Your task to perform on an android device: Open Google Chrome and click the shortcut for Amazon.com Image 0: 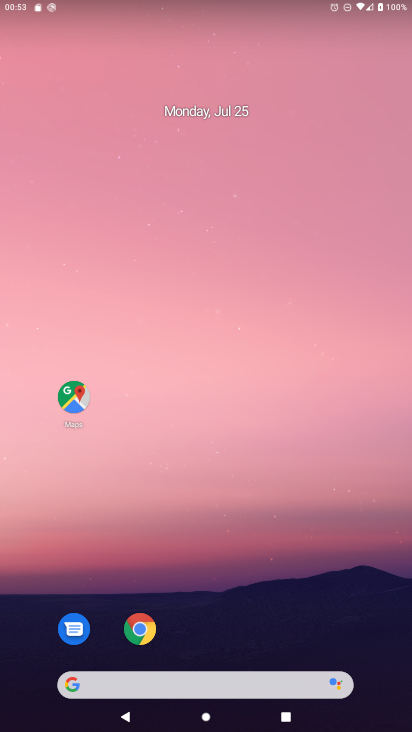
Step 0: drag from (192, 591) to (237, 174)
Your task to perform on an android device: Open Google Chrome and click the shortcut for Amazon.com Image 1: 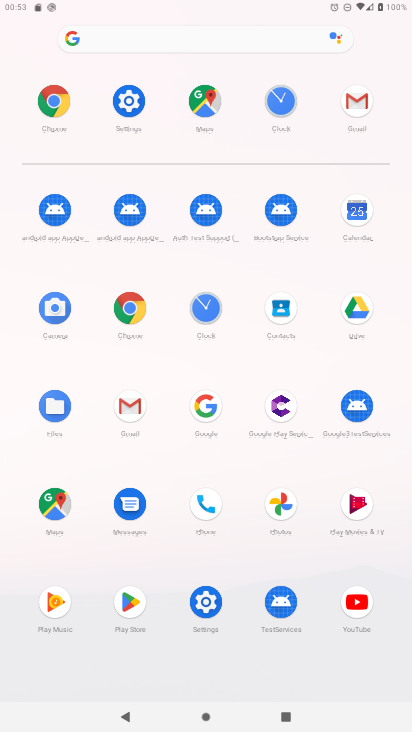
Step 1: click (127, 312)
Your task to perform on an android device: Open Google Chrome and click the shortcut for Amazon.com Image 2: 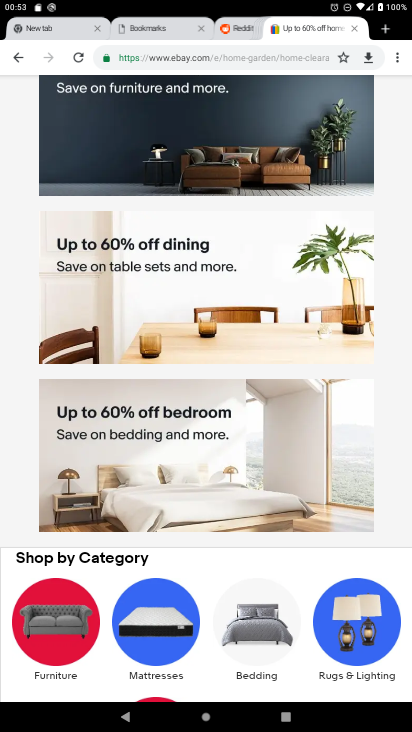
Step 2: drag from (392, 73) to (12, 170)
Your task to perform on an android device: Open Google Chrome and click the shortcut for Amazon.com Image 3: 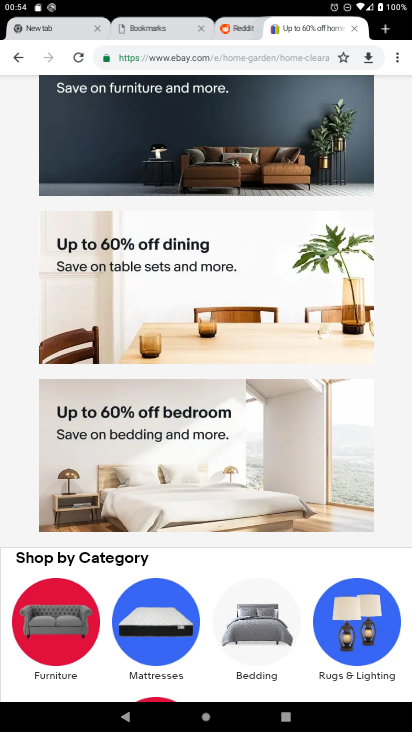
Step 3: drag from (136, 197) to (210, 718)
Your task to perform on an android device: Open Google Chrome and click the shortcut for Amazon.com Image 4: 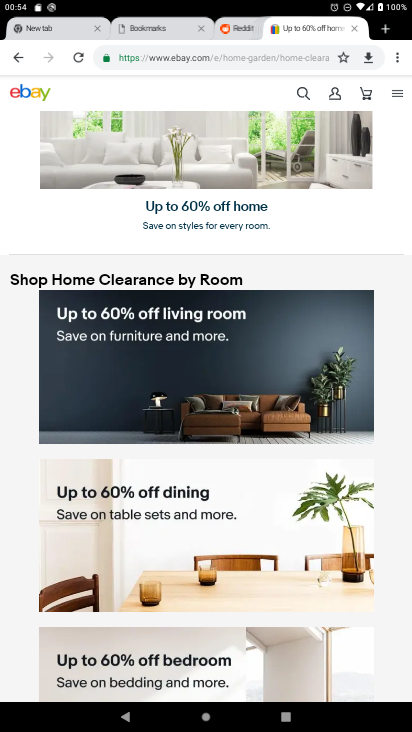
Step 4: click (354, 25)
Your task to perform on an android device: Open Google Chrome and click the shortcut for Amazon.com Image 5: 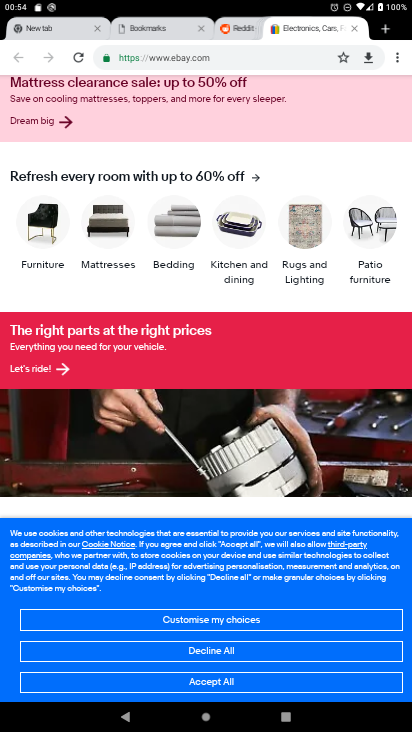
Step 5: click (356, 29)
Your task to perform on an android device: Open Google Chrome and click the shortcut for Amazon.com Image 6: 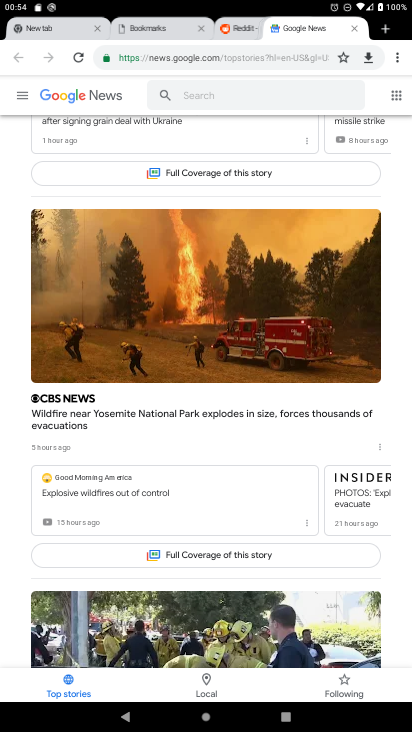
Step 6: click (355, 26)
Your task to perform on an android device: Open Google Chrome and click the shortcut for Amazon.com Image 7: 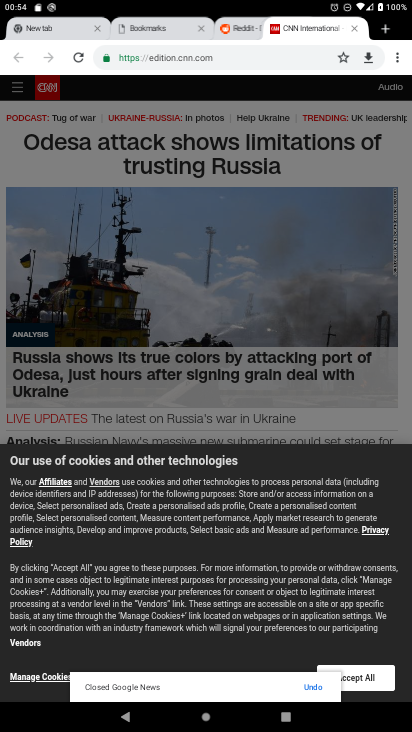
Step 7: click (354, 29)
Your task to perform on an android device: Open Google Chrome and click the shortcut for Amazon.com Image 8: 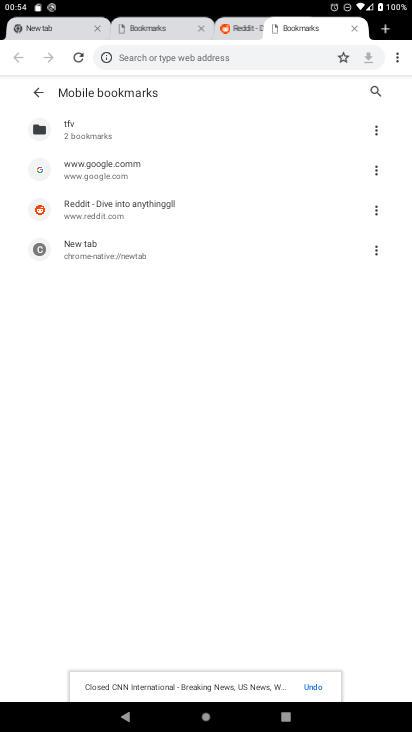
Step 8: click (41, 29)
Your task to perform on an android device: Open Google Chrome and click the shortcut for Amazon.com Image 9: 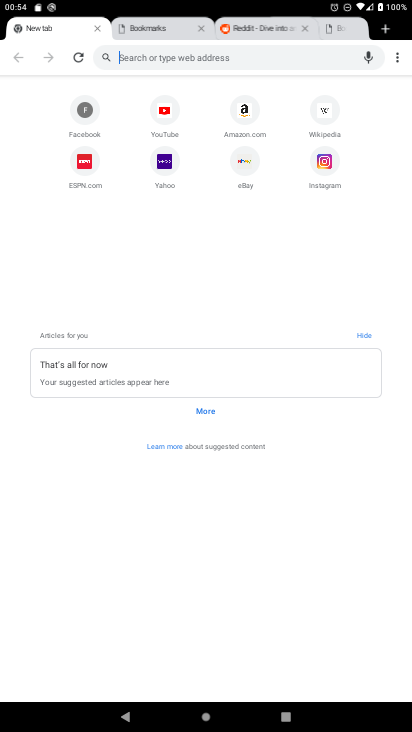
Step 9: click (241, 113)
Your task to perform on an android device: Open Google Chrome and click the shortcut for Amazon.com Image 10: 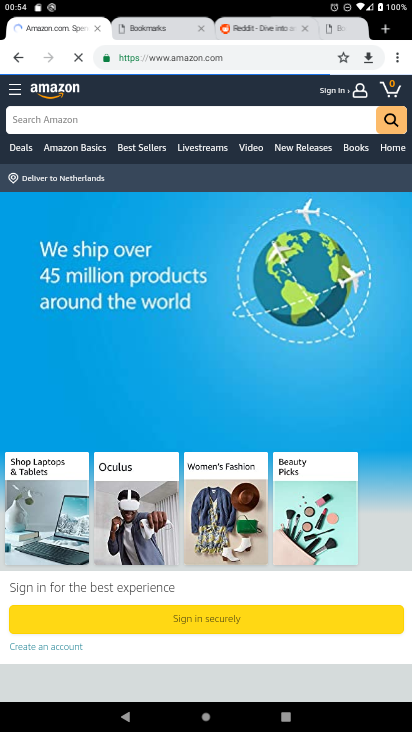
Step 10: task complete